Your task to perform on an android device: What's the weather going to be this weekend? Image 0: 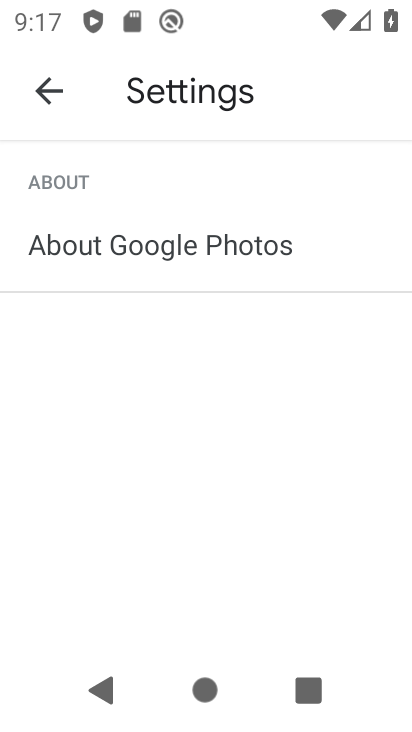
Step 0: press home button
Your task to perform on an android device: What's the weather going to be this weekend? Image 1: 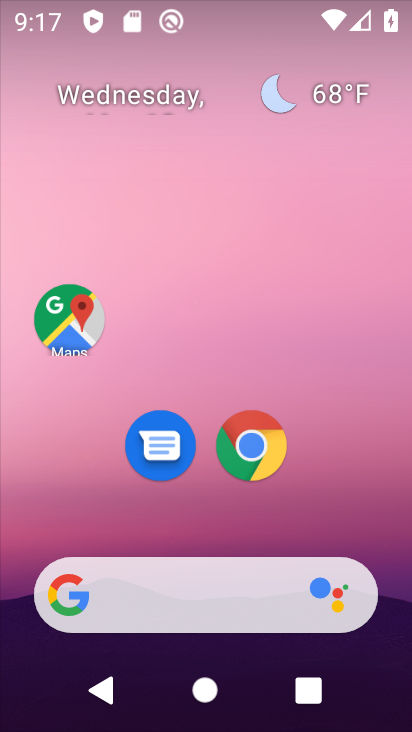
Step 1: drag from (340, 435) to (280, 78)
Your task to perform on an android device: What's the weather going to be this weekend? Image 2: 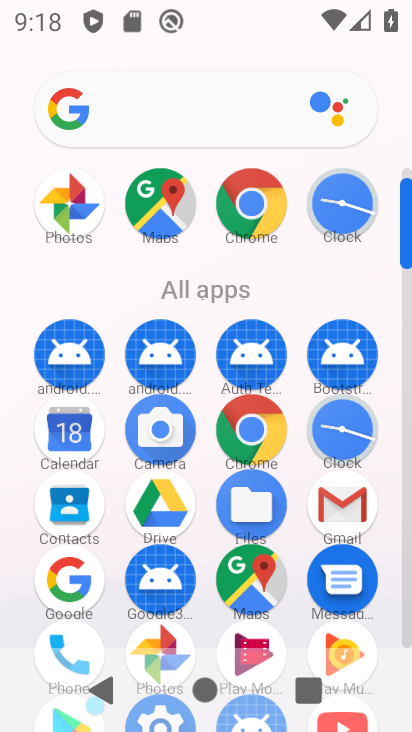
Step 2: click (164, 222)
Your task to perform on an android device: What's the weather going to be this weekend? Image 3: 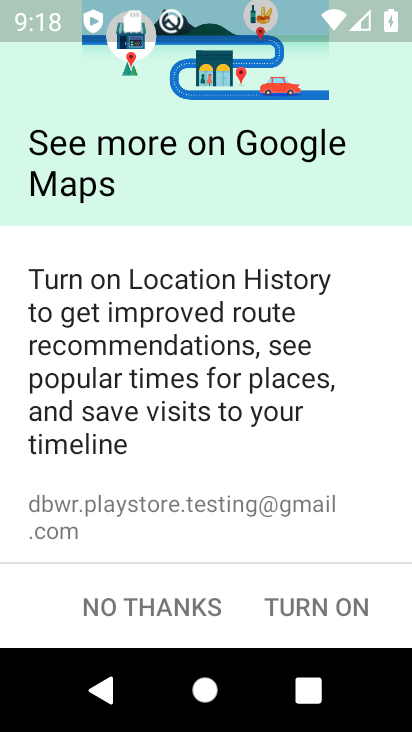
Step 3: click (136, 610)
Your task to perform on an android device: What's the weather going to be this weekend? Image 4: 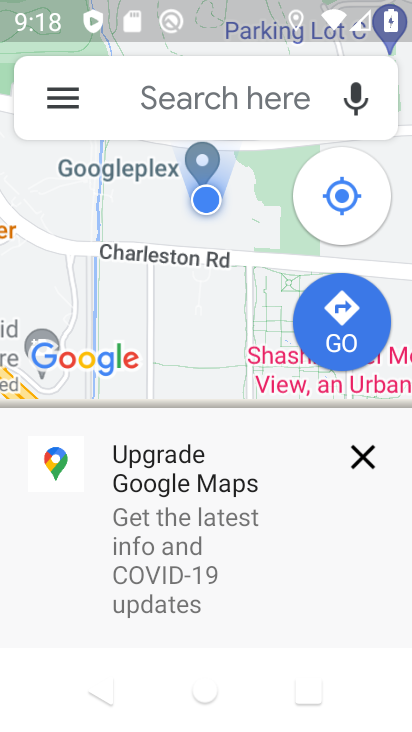
Step 4: press home button
Your task to perform on an android device: What's the weather going to be this weekend? Image 5: 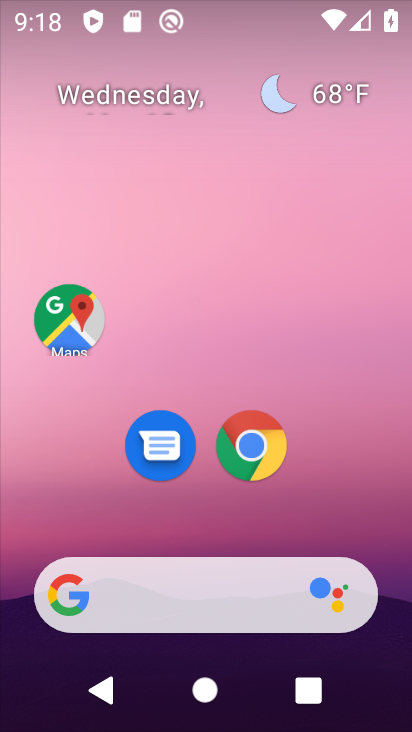
Step 5: click (56, 618)
Your task to perform on an android device: What's the weather going to be this weekend? Image 6: 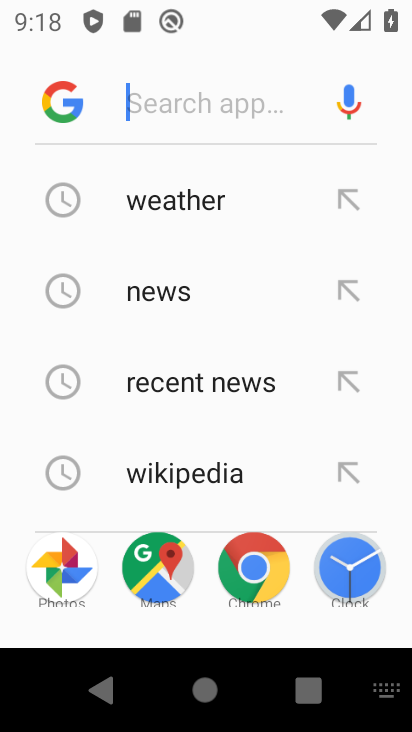
Step 6: click (56, 115)
Your task to perform on an android device: What's the weather going to be this weekend? Image 7: 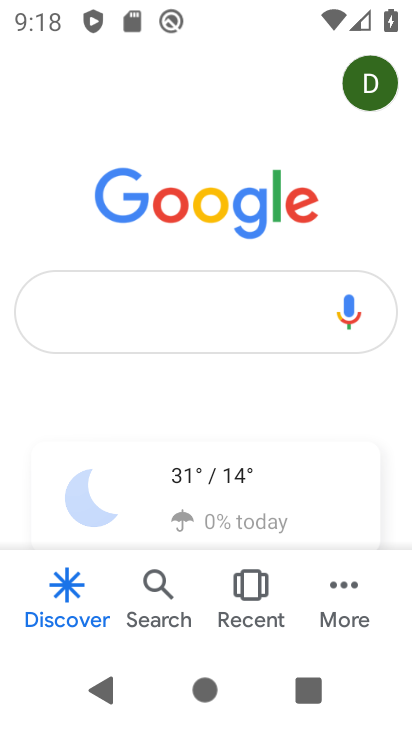
Step 7: drag from (307, 513) to (321, 284)
Your task to perform on an android device: What's the weather going to be this weekend? Image 8: 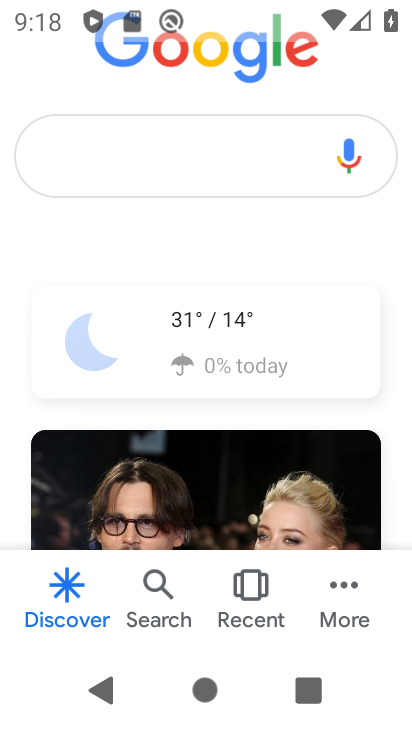
Step 8: click (234, 336)
Your task to perform on an android device: What's the weather going to be this weekend? Image 9: 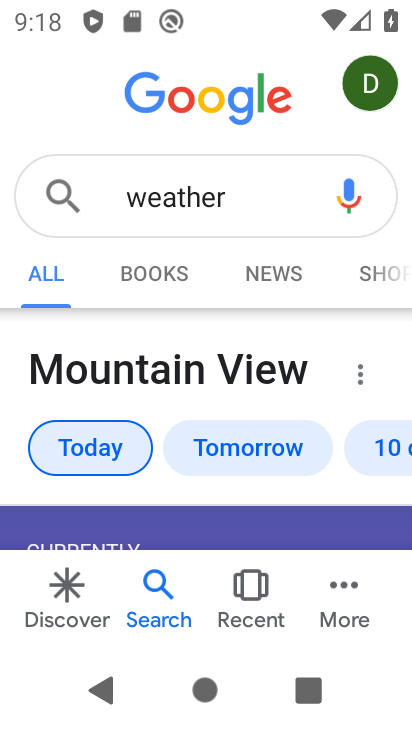
Step 9: drag from (328, 504) to (342, 172)
Your task to perform on an android device: What's the weather going to be this weekend? Image 10: 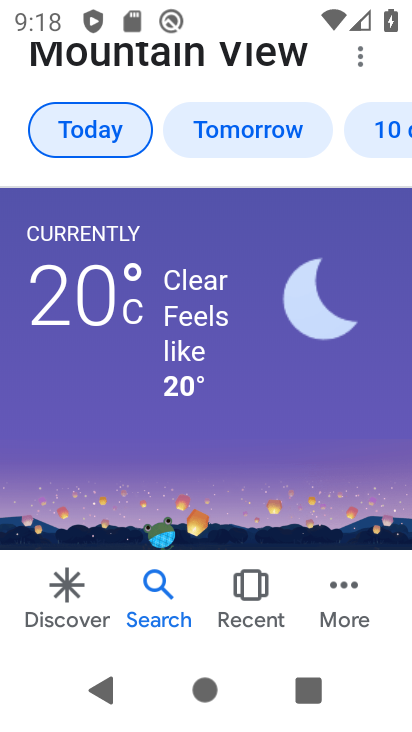
Step 10: drag from (332, 389) to (304, 178)
Your task to perform on an android device: What's the weather going to be this weekend? Image 11: 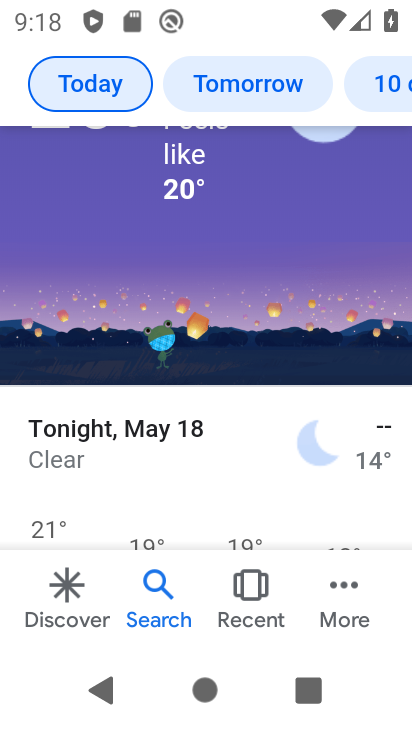
Step 11: drag from (304, 201) to (264, 433)
Your task to perform on an android device: What's the weather going to be this weekend? Image 12: 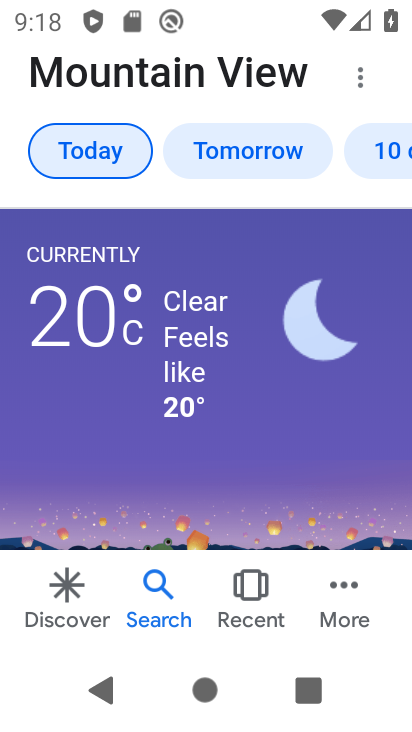
Step 12: click (382, 160)
Your task to perform on an android device: What's the weather going to be this weekend? Image 13: 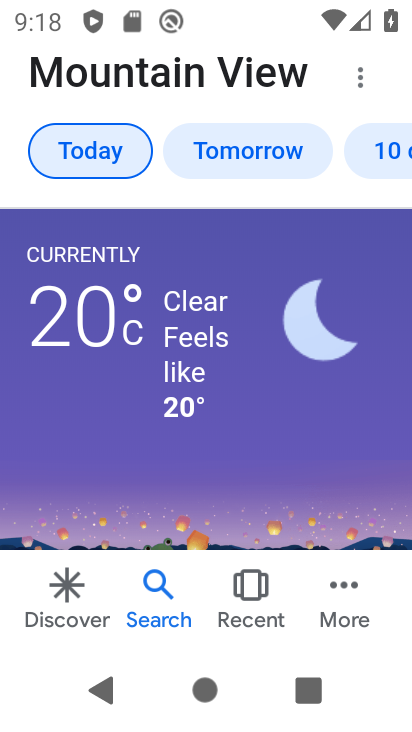
Step 13: click (403, 161)
Your task to perform on an android device: What's the weather going to be this weekend? Image 14: 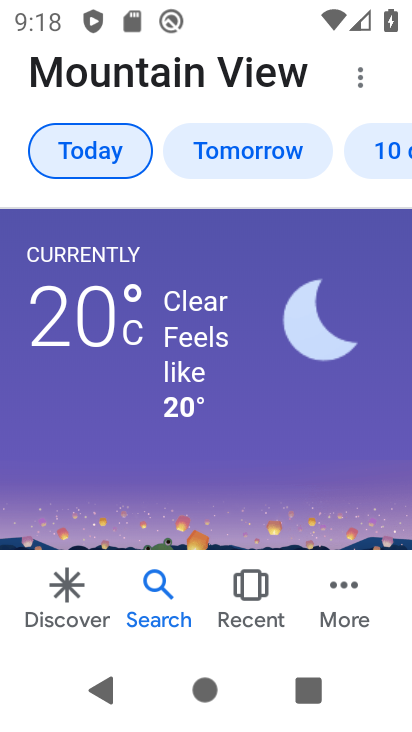
Step 14: click (384, 155)
Your task to perform on an android device: What's the weather going to be this weekend? Image 15: 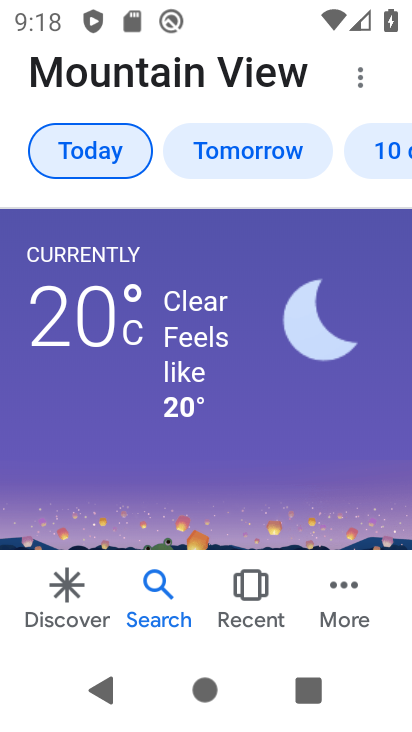
Step 15: task complete